Your task to perform on an android device: turn on translation in the chrome app Image 0: 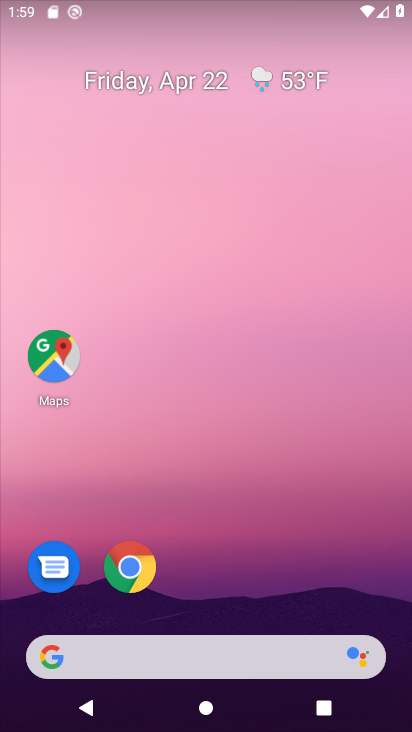
Step 0: click (125, 572)
Your task to perform on an android device: turn on translation in the chrome app Image 1: 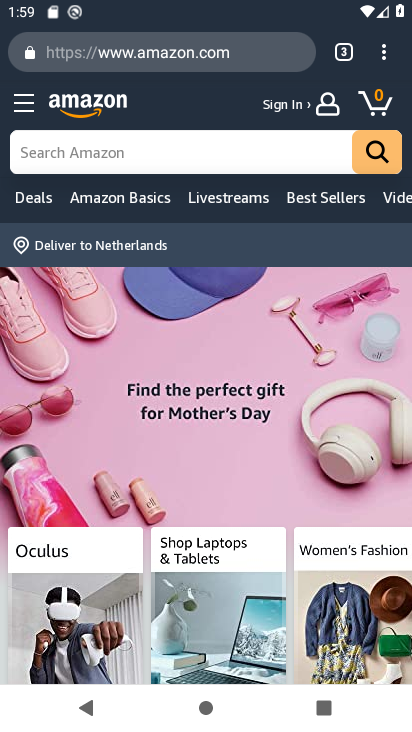
Step 1: drag from (383, 59) to (333, 608)
Your task to perform on an android device: turn on translation in the chrome app Image 2: 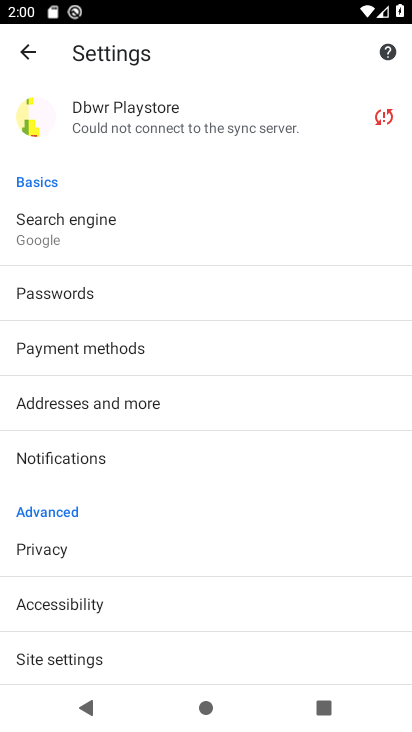
Step 2: drag from (260, 630) to (257, 275)
Your task to perform on an android device: turn on translation in the chrome app Image 3: 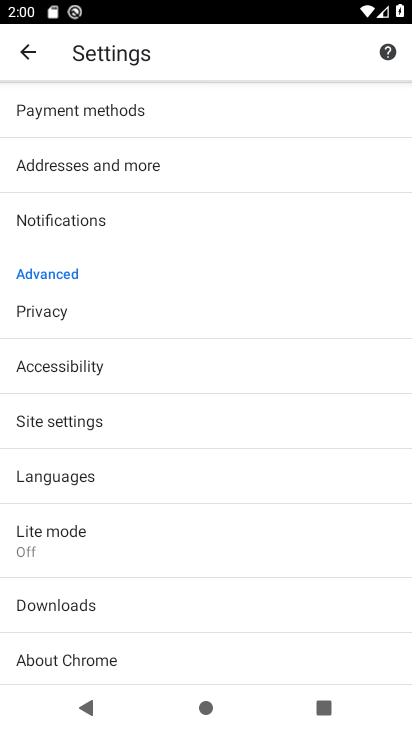
Step 3: click (183, 482)
Your task to perform on an android device: turn on translation in the chrome app Image 4: 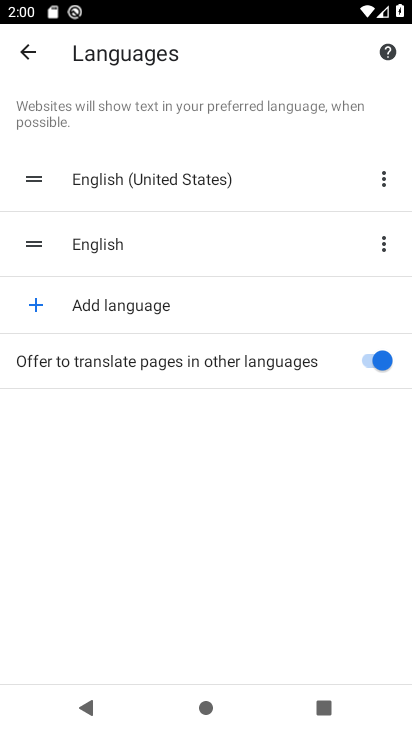
Step 4: task complete